Your task to perform on an android device: Turn on the flashlight Image 0: 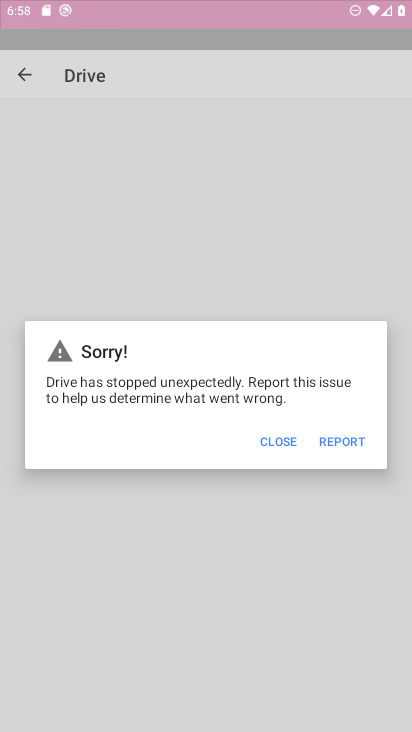
Step 0: click (131, 623)
Your task to perform on an android device: Turn on the flashlight Image 1: 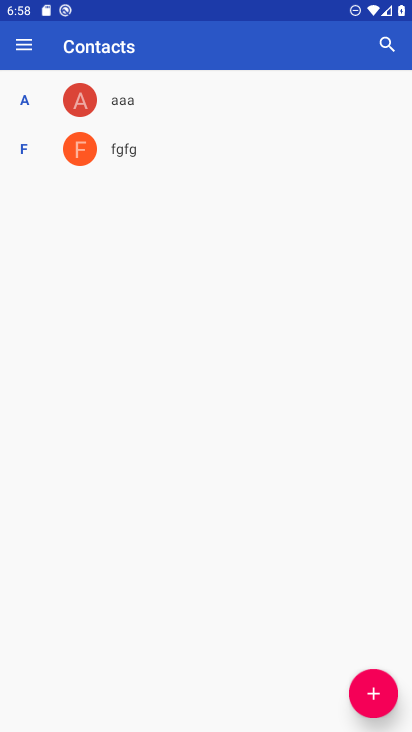
Step 1: press home button
Your task to perform on an android device: Turn on the flashlight Image 2: 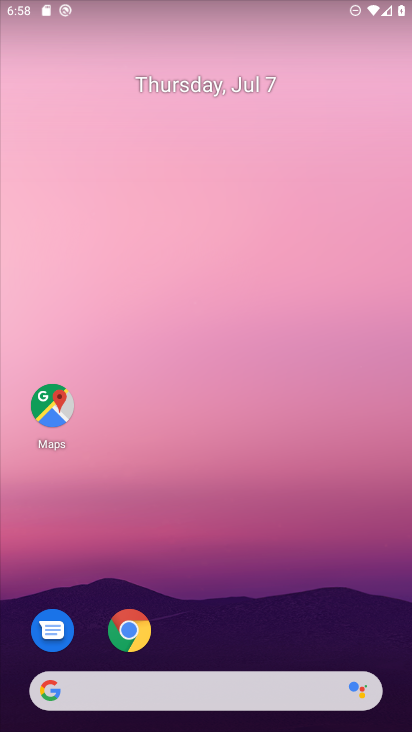
Step 2: drag from (227, 611) to (114, 166)
Your task to perform on an android device: Turn on the flashlight Image 3: 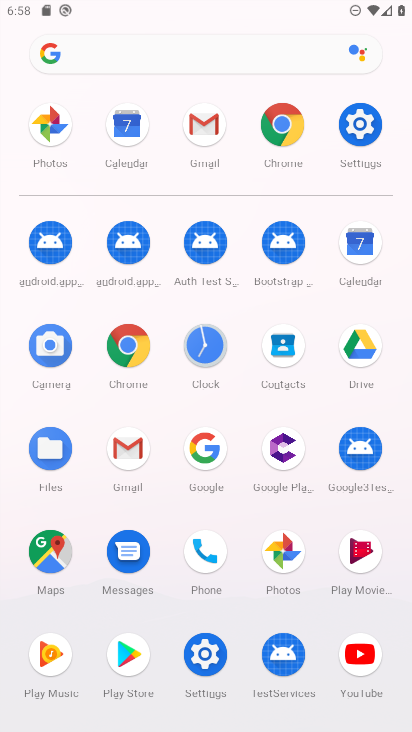
Step 3: click (362, 125)
Your task to perform on an android device: Turn on the flashlight Image 4: 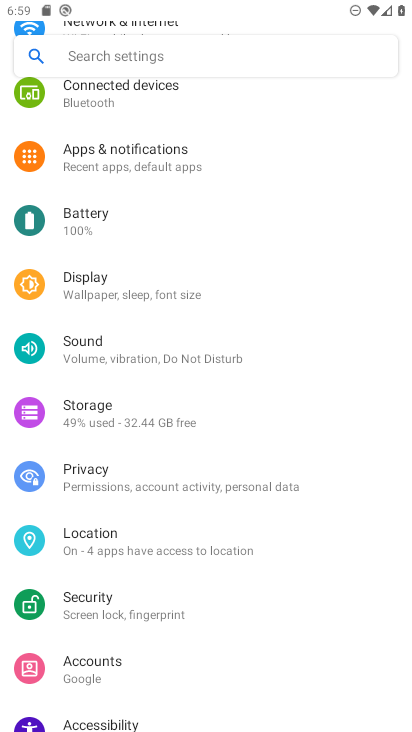
Step 4: click (80, 280)
Your task to perform on an android device: Turn on the flashlight Image 5: 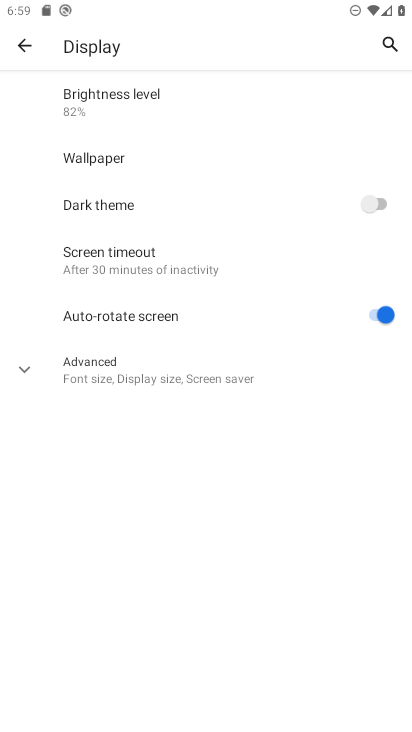
Step 5: task complete